Your task to perform on an android device: change keyboard looks Image 0: 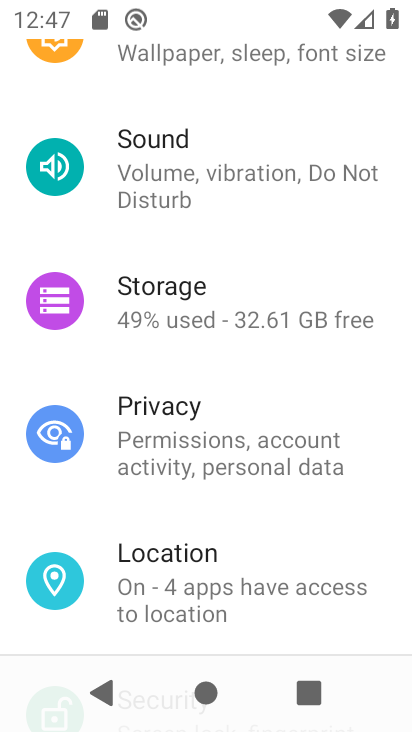
Step 0: drag from (173, 556) to (273, 11)
Your task to perform on an android device: change keyboard looks Image 1: 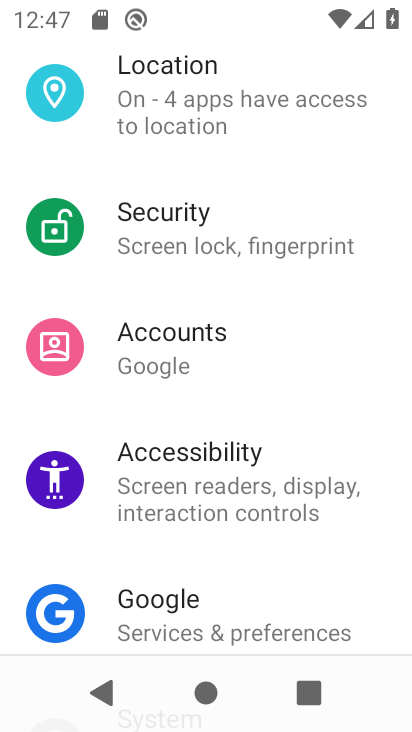
Step 1: drag from (282, 558) to (354, 2)
Your task to perform on an android device: change keyboard looks Image 2: 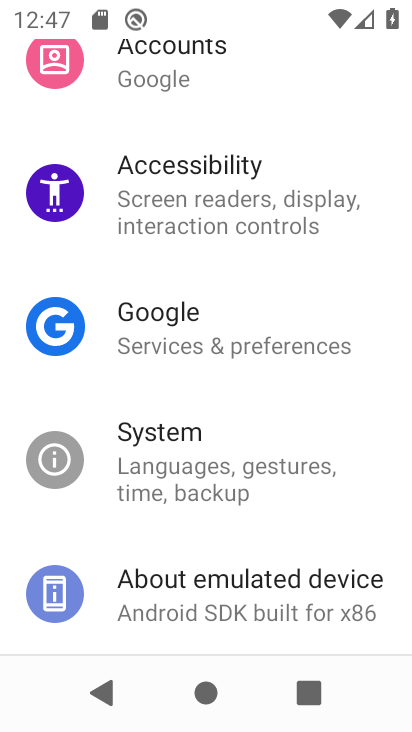
Step 2: click (222, 459)
Your task to perform on an android device: change keyboard looks Image 3: 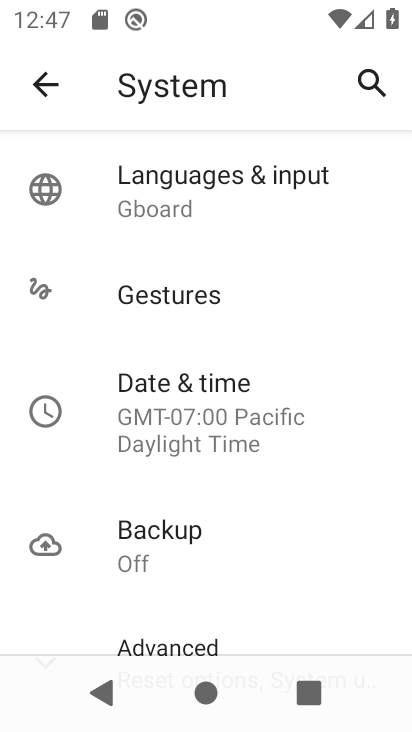
Step 3: drag from (200, 436) to (307, 0)
Your task to perform on an android device: change keyboard looks Image 4: 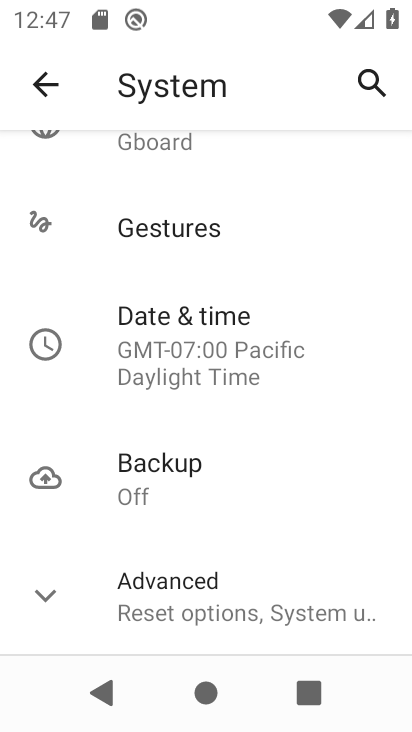
Step 4: drag from (173, 514) to (300, 128)
Your task to perform on an android device: change keyboard looks Image 5: 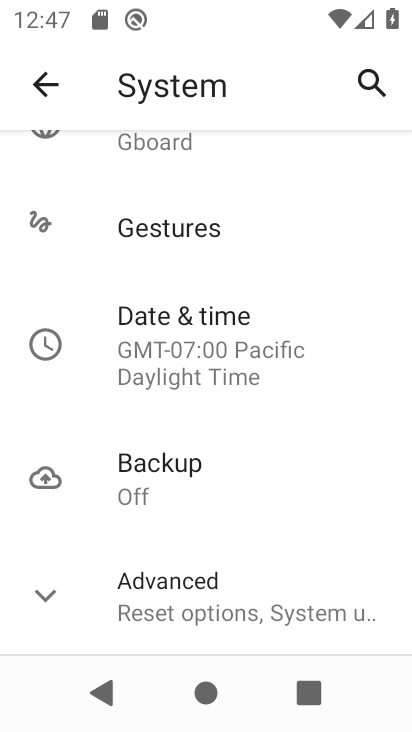
Step 5: drag from (258, 202) to (238, 731)
Your task to perform on an android device: change keyboard looks Image 6: 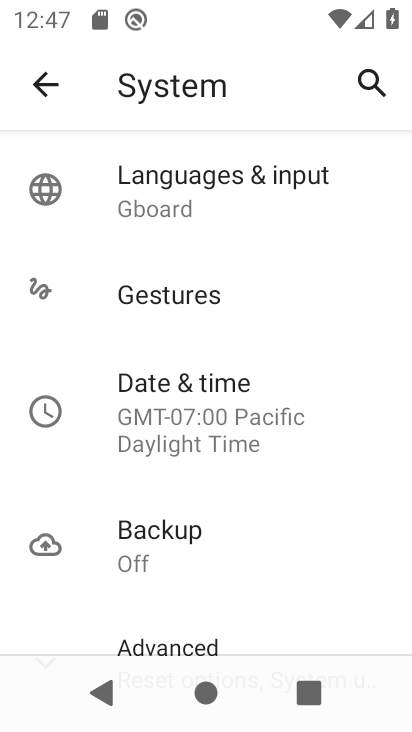
Step 6: click (203, 201)
Your task to perform on an android device: change keyboard looks Image 7: 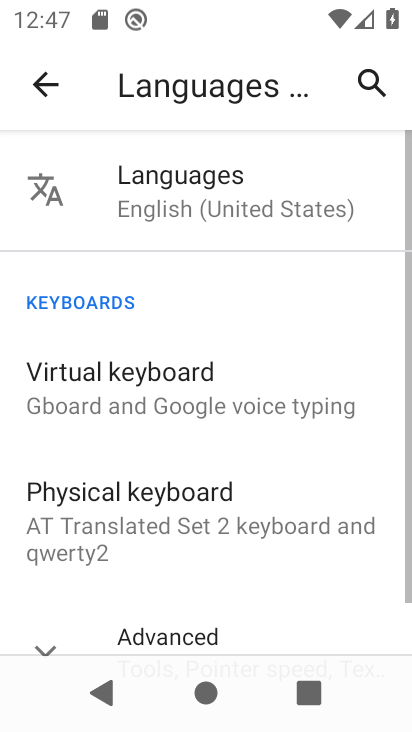
Step 7: drag from (219, 540) to (253, 350)
Your task to perform on an android device: change keyboard looks Image 8: 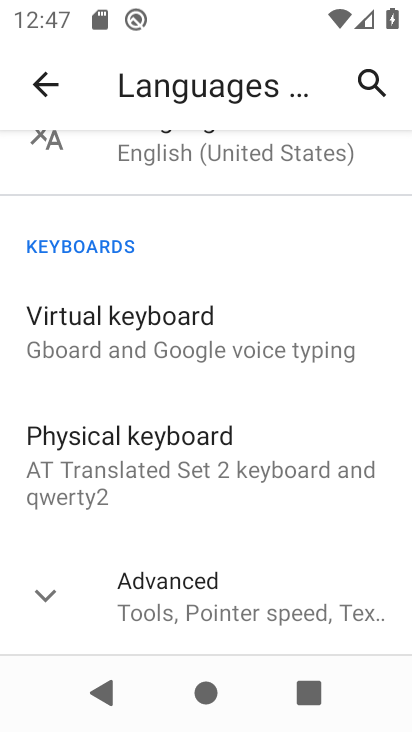
Step 8: drag from (278, 226) to (230, 519)
Your task to perform on an android device: change keyboard looks Image 9: 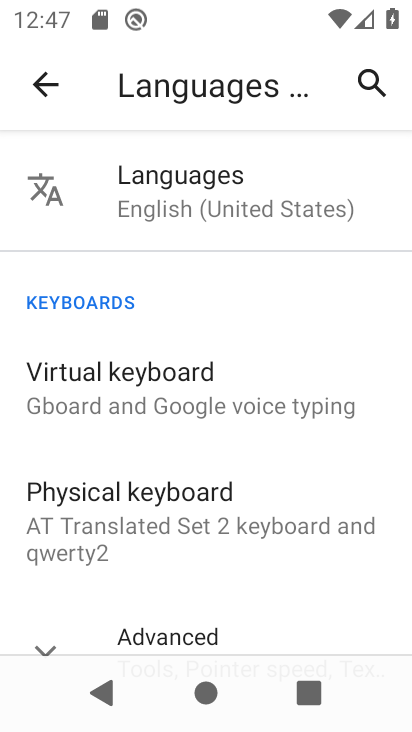
Step 9: click (146, 381)
Your task to perform on an android device: change keyboard looks Image 10: 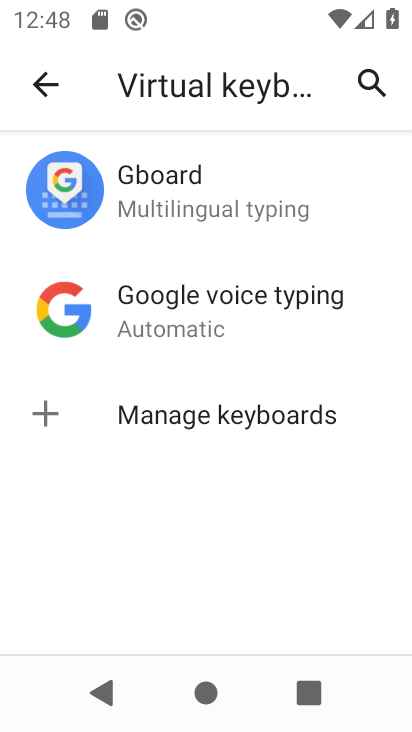
Step 10: click (211, 173)
Your task to perform on an android device: change keyboard looks Image 11: 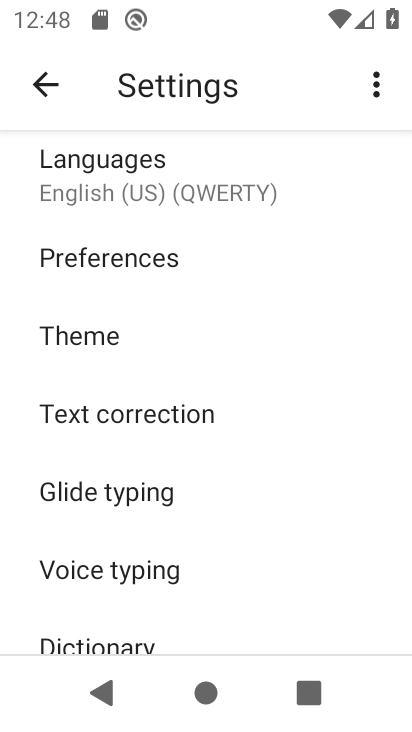
Step 11: click (95, 328)
Your task to perform on an android device: change keyboard looks Image 12: 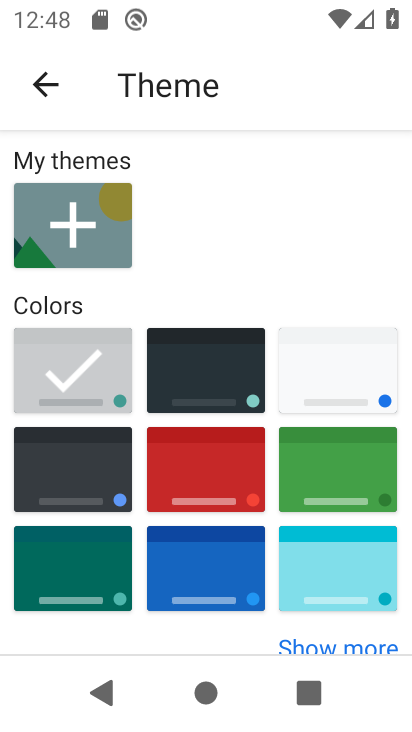
Step 12: drag from (169, 575) to (326, 244)
Your task to perform on an android device: change keyboard looks Image 13: 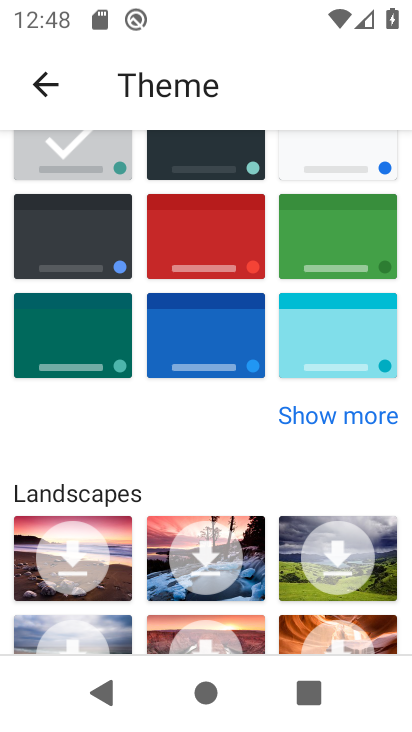
Step 13: click (80, 345)
Your task to perform on an android device: change keyboard looks Image 14: 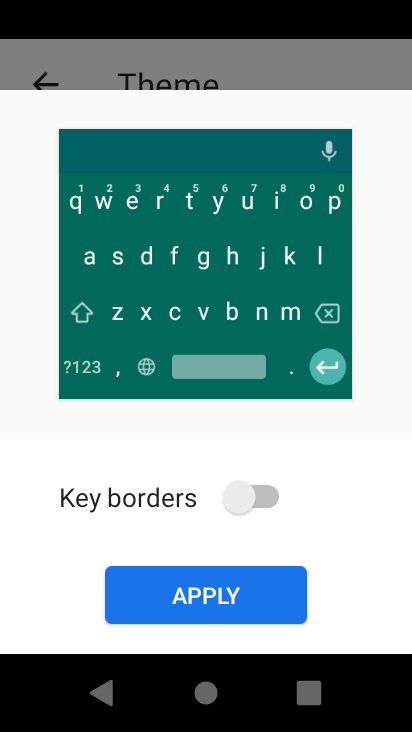
Step 14: click (224, 581)
Your task to perform on an android device: change keyboard looks Image 15: 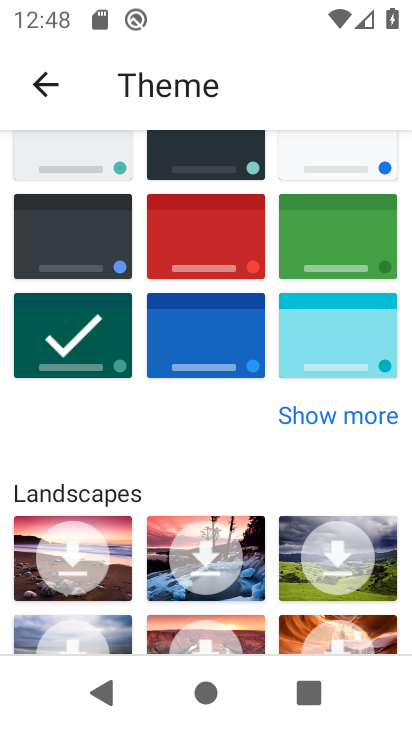
Step 15: task complete